Your task to perform on an android device: Open the web browser Image 0: 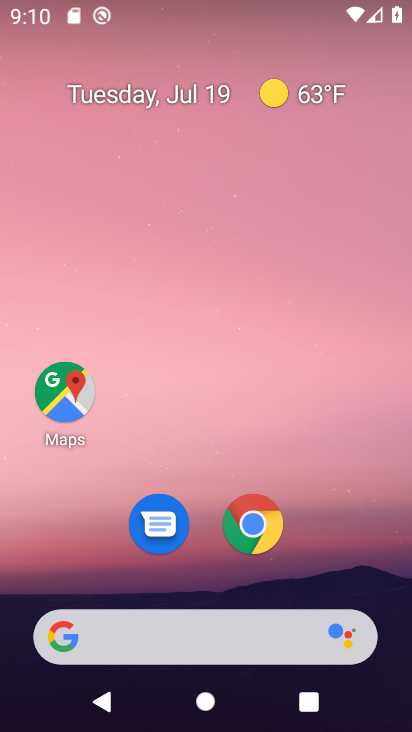
Step 0: click (250, 530)
Your task to perform on an android device: Open the web browser Image 1: 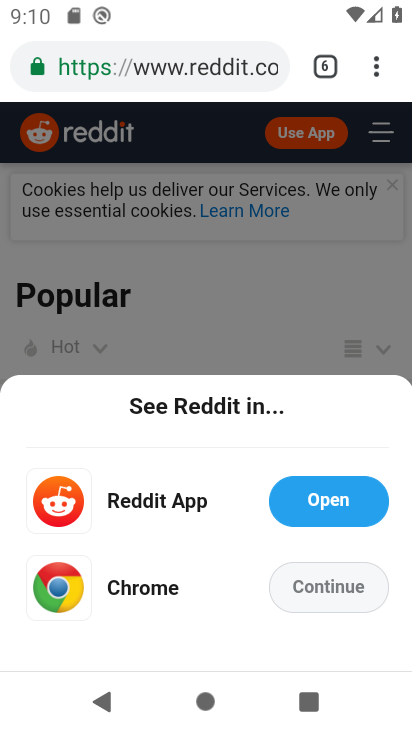
Step 1: task complete